Your task to perform on an android device: open a bookmark in the chrome app Image 0: 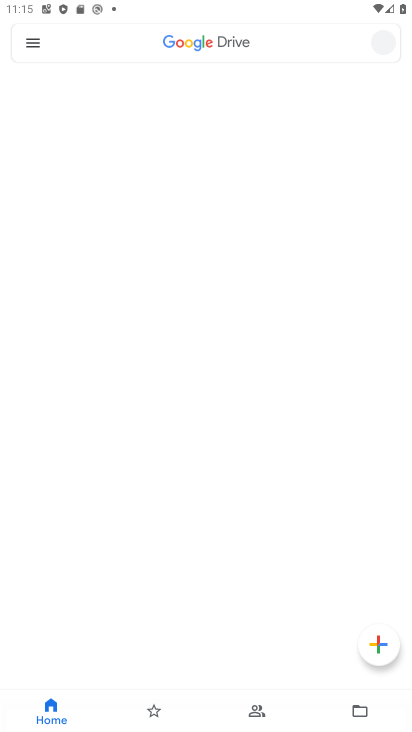
Step 0: press home button
Your task to perform on an android device: open a bookmark in the chrome app Image 1: 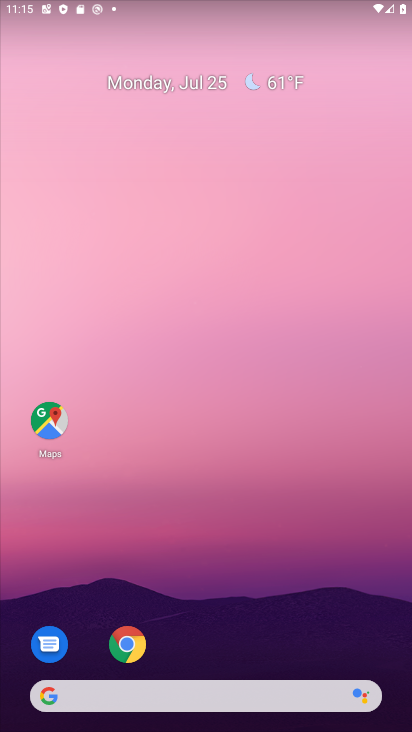
Step 1: click (122, 652)
Your task to perform on an android device: open a bookmark in the chrome app Image 2: 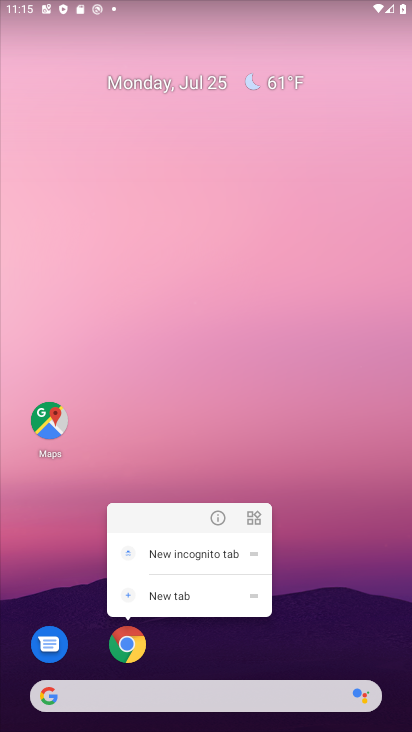
Step 2: click (138, 649)
Your task to perform on an android device: open a bookmark in the chrome app Image 3: 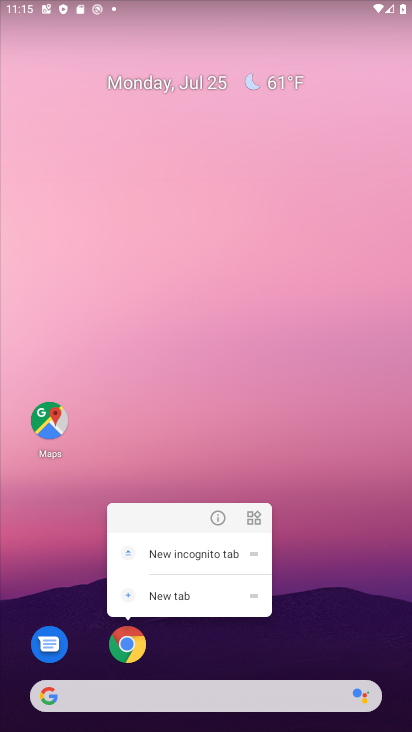
Step 3: click (138, 649)
Your task to perform on an android device: open a bookmark in the chrome app Image 4: 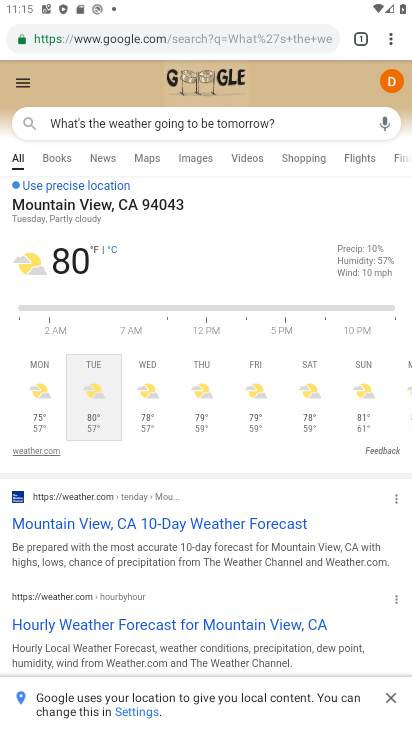
Step 4: click (393, 34)
Your task to perform on an android device: open a bookmark in the chrome app Image 5: 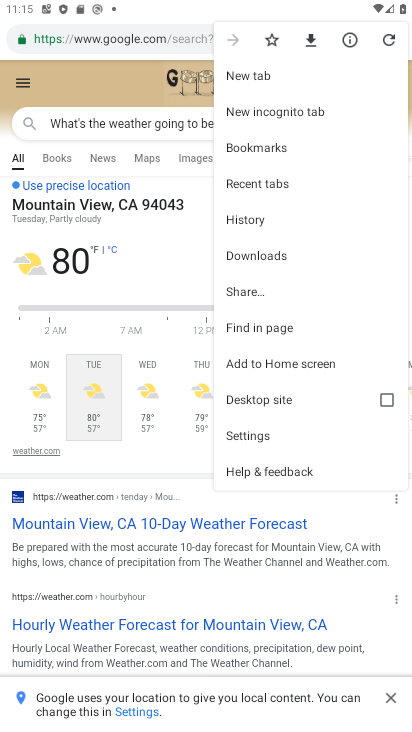
Step 5: click (260, 147)
Your task to perform on an android device: open a bookmark in the chrome app Image 6: 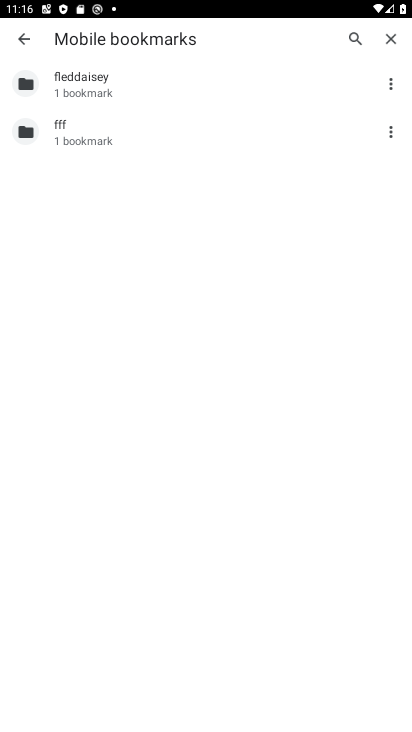
Step 6: task complete